Your task to perform on an android device: manage bookmarks in the chrome app Image 0: 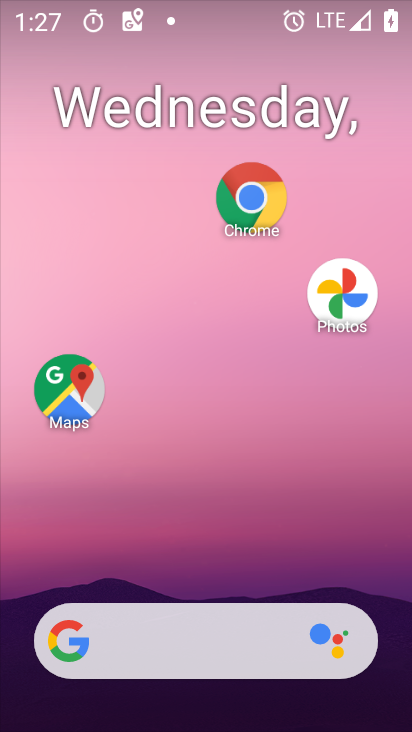
Step 0: click (256, 216)
Your task to perform on an android device: manage bookmarks in the chrome app Image 1: 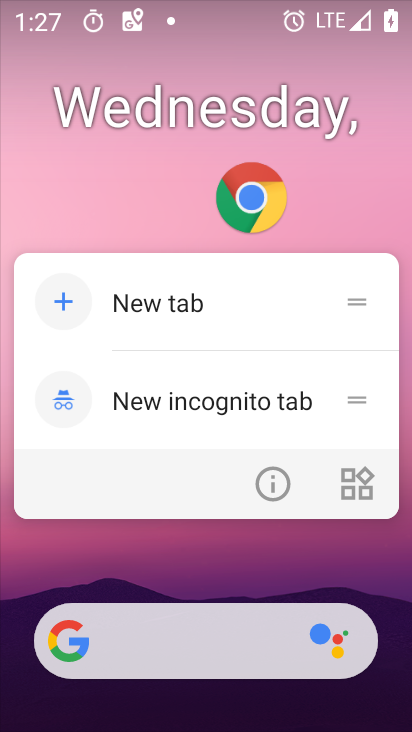
Step 1: click (256, 216)
Your task to perform on an android device: manage bookmarks in the chrome app Image 2: 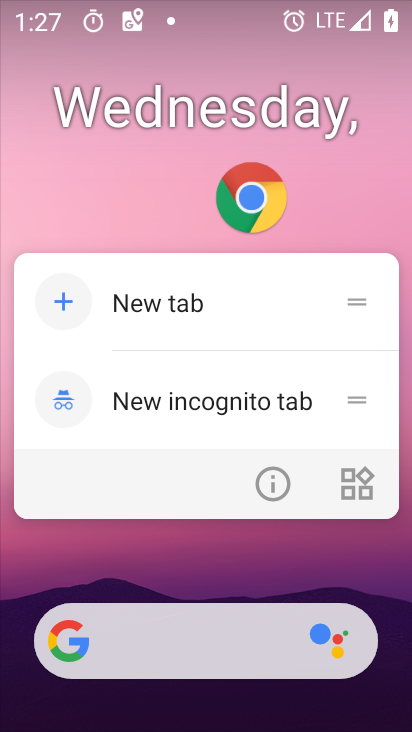
Step 2: click (257, 217)
Your task to perform on an android device: manage bookmarks in the chrome app Image 3: 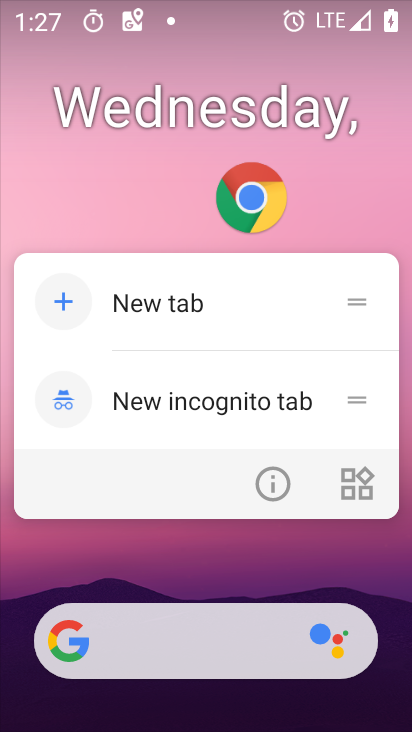
Step 3: click (257, 217)
Your task to perform on an android device: manage bookmarks in the chrome app Image 4: 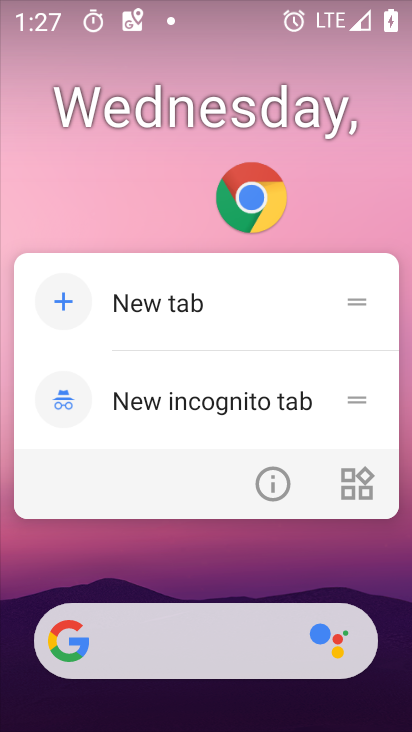
Step 4: click (260, 176)
Your task to perform on an android device: manage bookmarks in the chrome app Image 5: 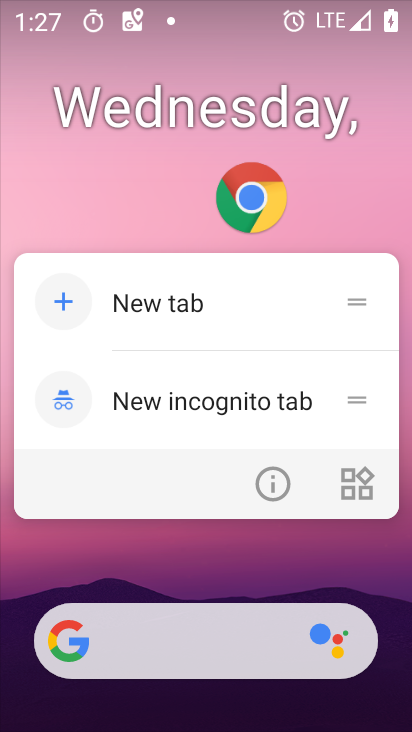
Step 5: click (252, 191)
Your task to perform on an android device: manage bookmarks in the chrome app Image 6: 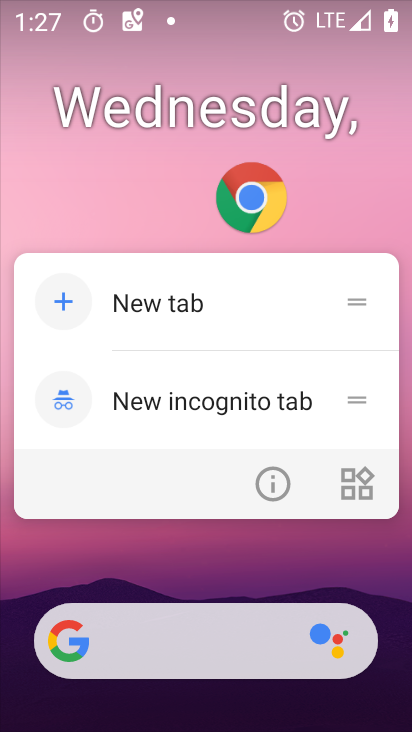
Step 6: click (247, 208)
Your task to perform on an android device: manage bookmarks in the chrome app Image 7: 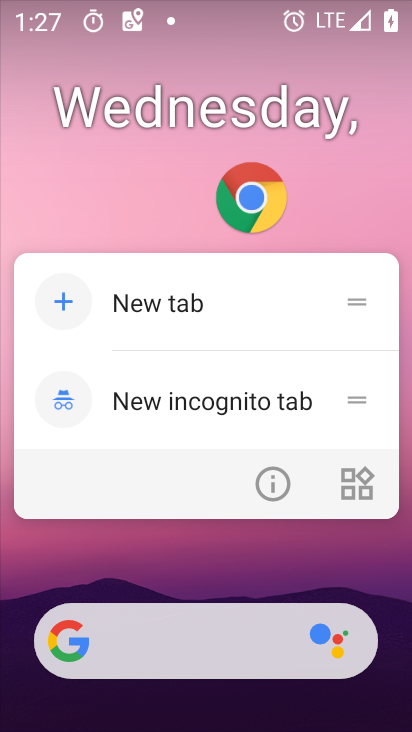
Step 7: click (247, 208)
Your task to perform on an android device: manage bookmarks in the chrome app Image 8: 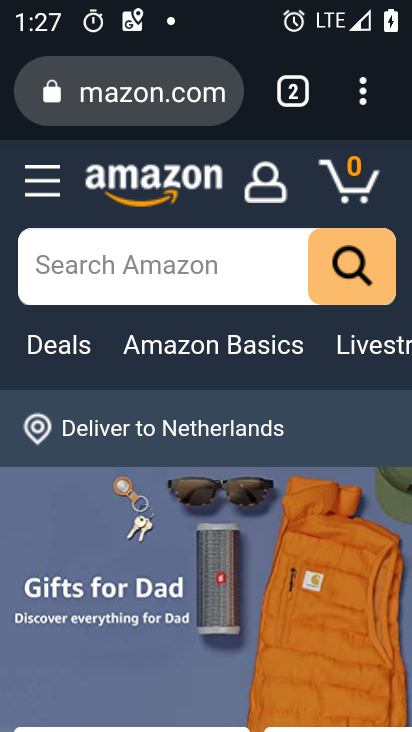
Step 8: click (355, 111)
Your task to perform on an android device: manage bookmarks in the chrome app Image 9: 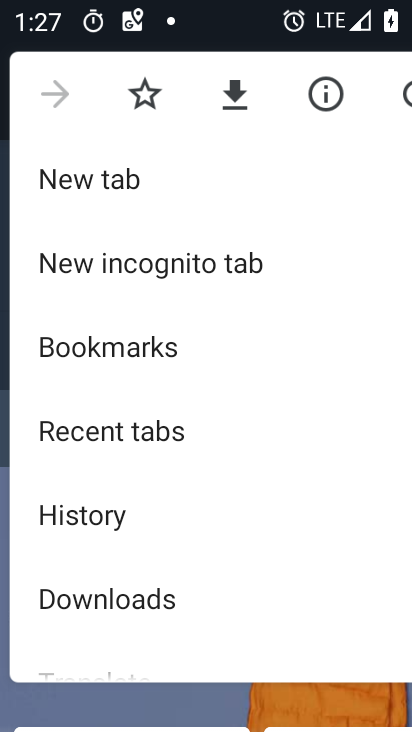
Step 9: click (174, 351)
Your task to perform on an android device: manage bookmarks in the chrome app Image 10: 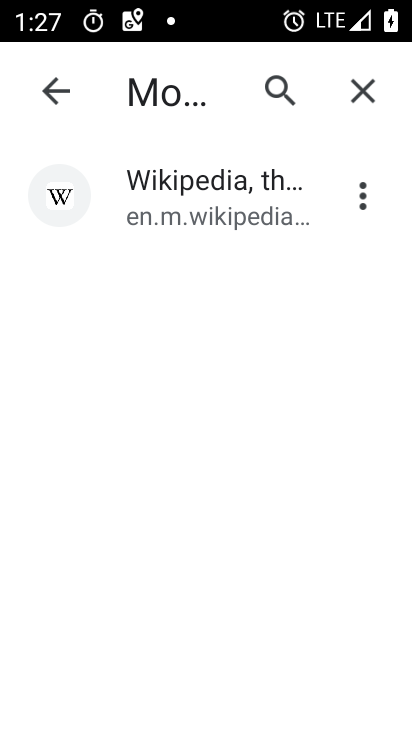
Step 10: task complete